Your task to perform on an android device: Open Google Maps and go to "Timeline" Image 0: 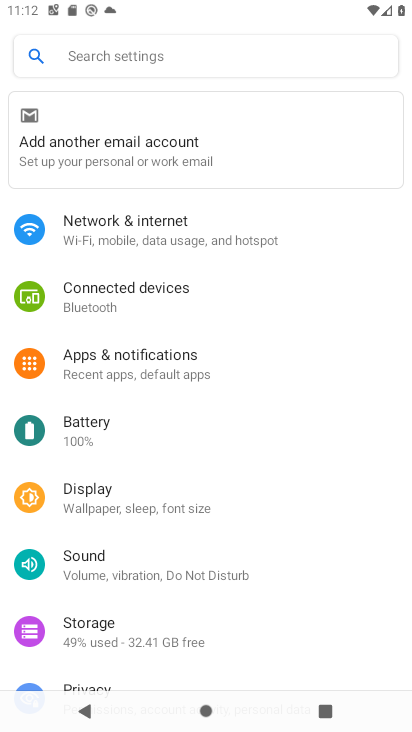
Step 0: press home button
Your task to perform on an android device: Open Google Maps and go to "Timeline" Image 1: 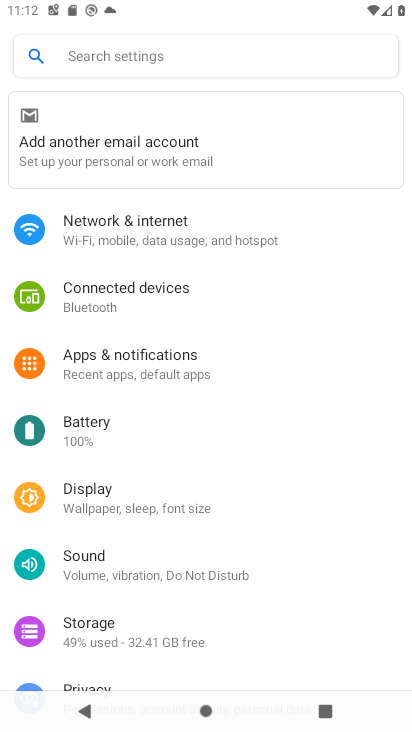
Step 1: press home button
Your task to perform on an android device: Open Google Maps and go to "Timeline" Image 2: 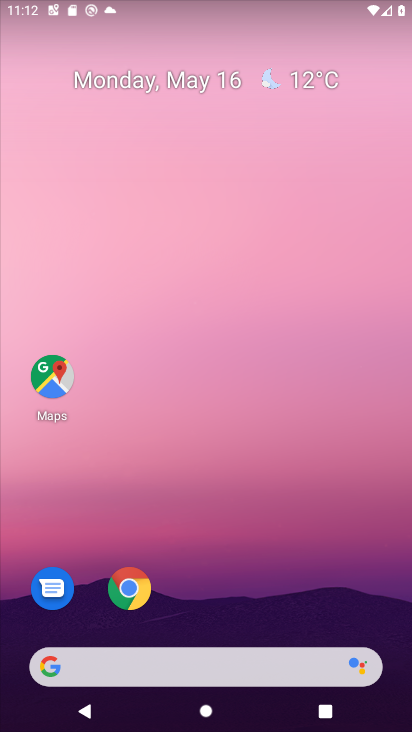
Step 2: click (52, 379)
Your task to perform on an android device: Open Google Maps and go to "Timeline" Image 3: 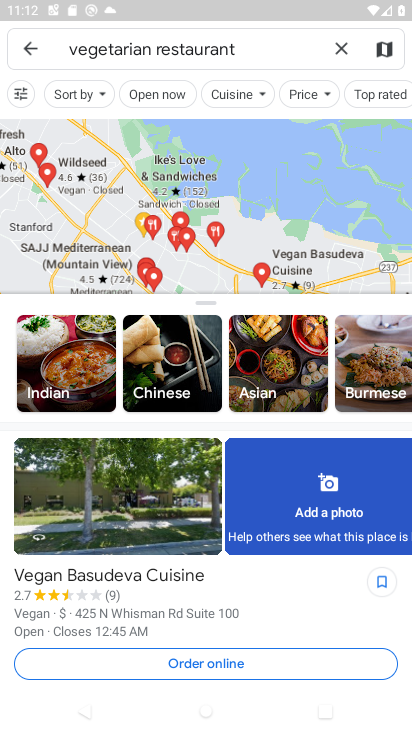
Step 3: click (339, 46)
Your task to perform on an android device: Open Google Maps and go to "Timeline" Image 4: 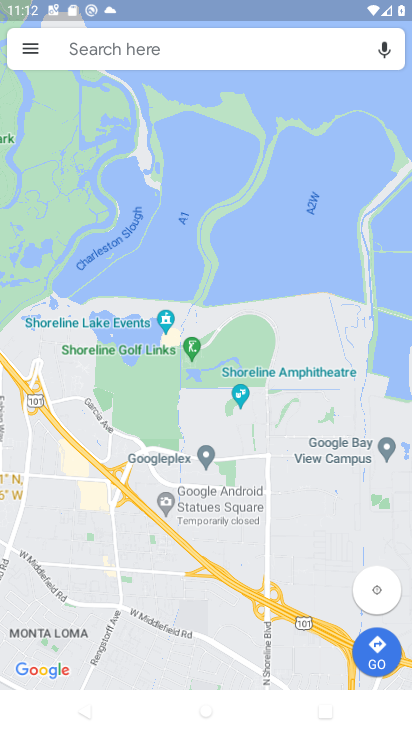
Step 4: click (32, 47)
Your task to perform on an android device: Open Google Maps and go to "Timeline" Image 5: 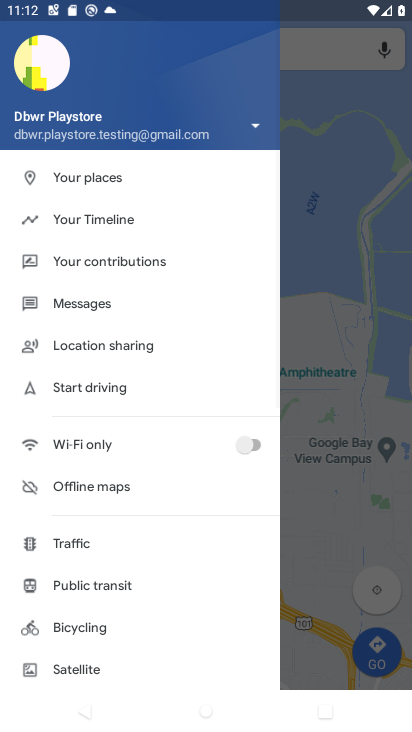
Step 5: click (104, 221)
Your task to perform on an android device: Open Google Maps and go to "Timeline" Image 6: 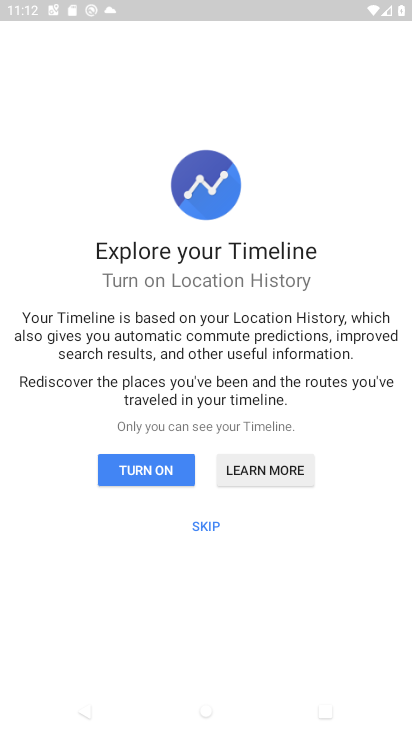
Step 6: click (131, 471)
Your task to perform on an android device: Open Google Maps and go to "Timeline" Image 7: 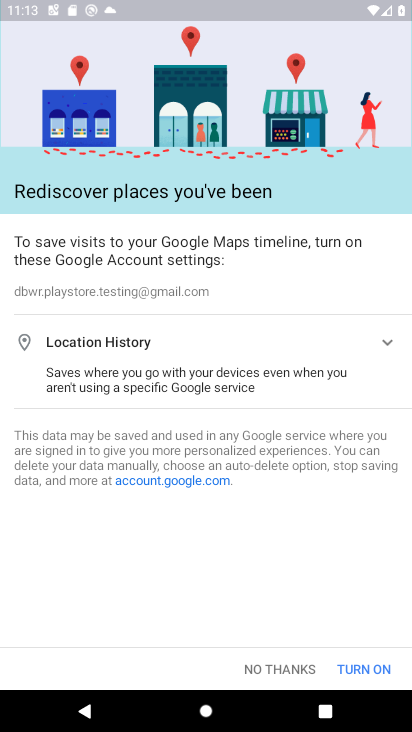
Step 7: click (364, 664)
Your task to perform on an android device: Open Google Maps and go to "Timeline" Image 8: 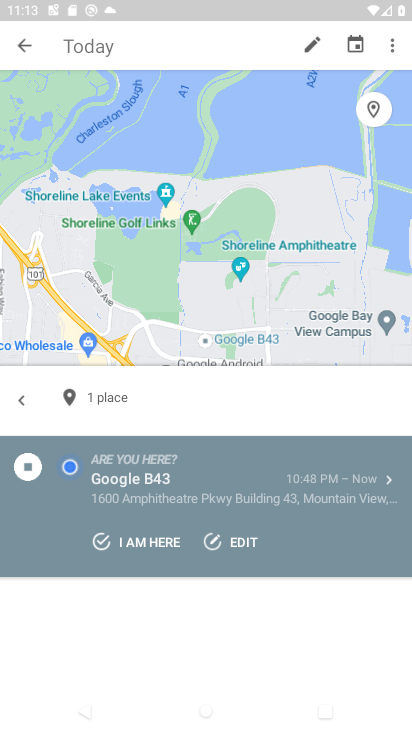
Step 8: task complete